Your task to perform on an android device: find snoozed emails in the gmail app Image 0: 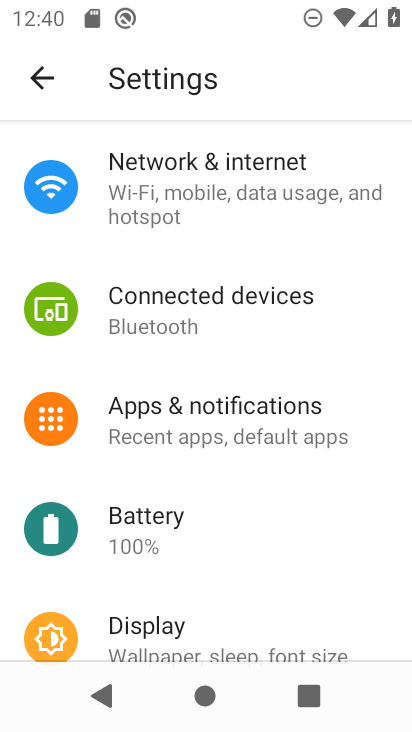
Step 0: press home button
Your task to perform on an android device: find snoozed emails in the gmail app Image 1: 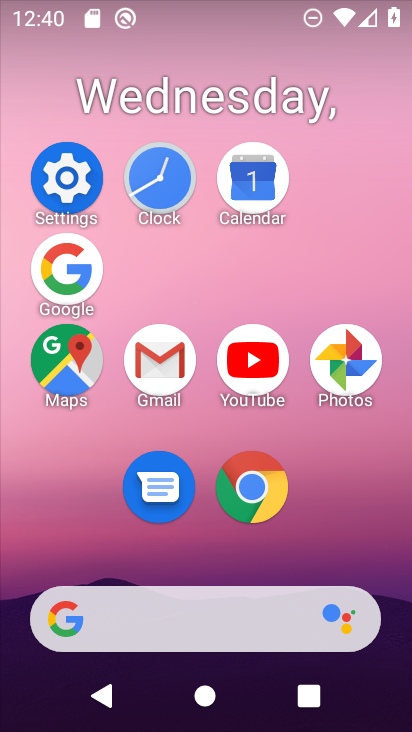
Step 1: click (159, 371)
Your task to perform on an android device: find snoozed emails in the gmail app Image 2: 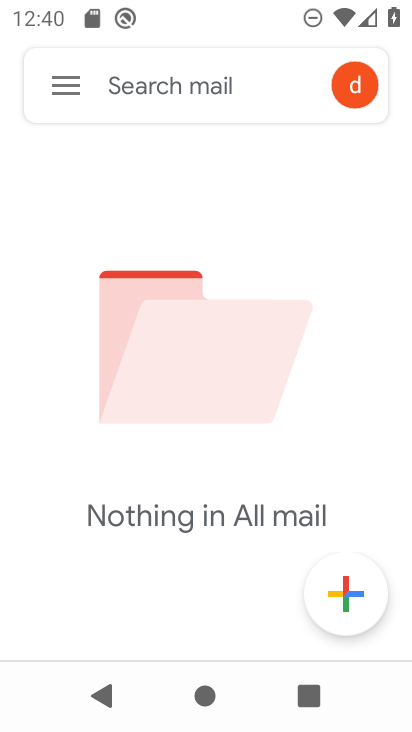
Step 2: click (73, 98)
Your task to perform on an android device: find snoozed emails in the gmail app Image 3: 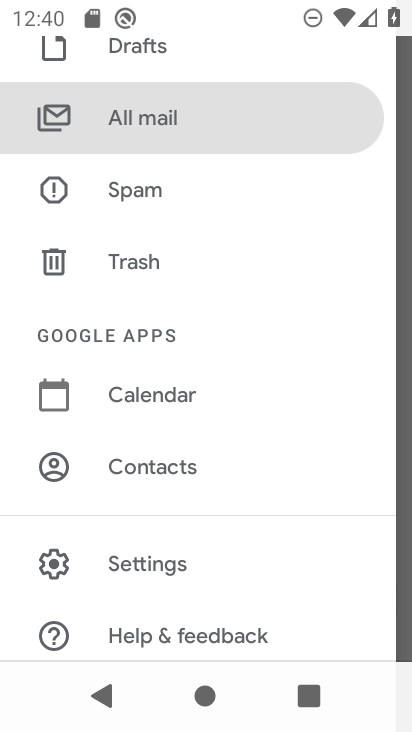
Step 3: drag from (243, 241) to (240, 589)
Your task to perform on an android device: find snoozed emails in the gmail app Image 4: 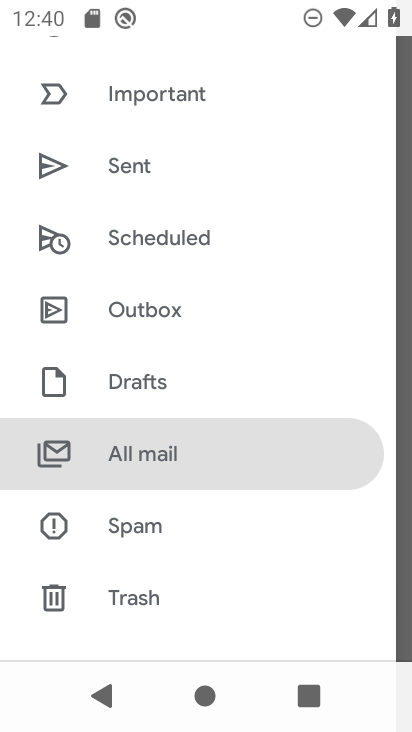
Step 4: drag from (256, 121) to (242, 501)
Your task to perform on an android device: find snoozed emails in the gmail app Image 5: 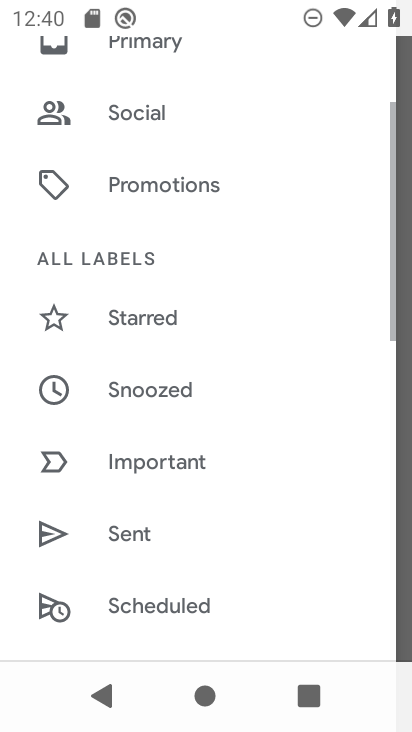
Step 5: drag from (242, 496) to (255, 100)
Your task to perform on an android device: find snoozed emails in the gmail app Image 6: 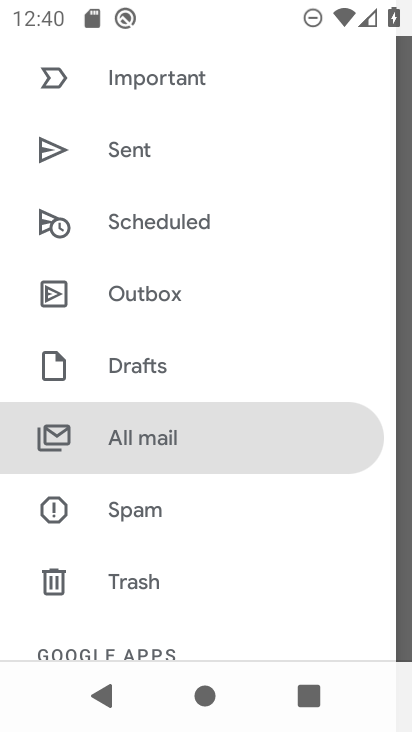
Step 6: click (228, 453)
Your task to perform on an android device: find snoozed emails in the gmail app Image 7: 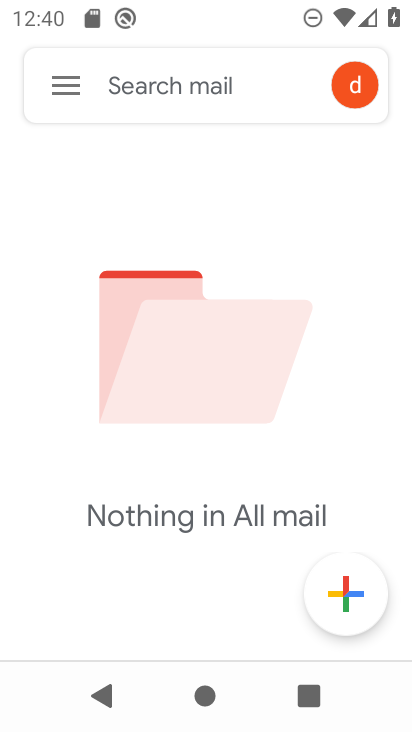
Step 7: click (49, 83)
Your task to perform on an android device: find snoozed emails in the gmail app Image 8: 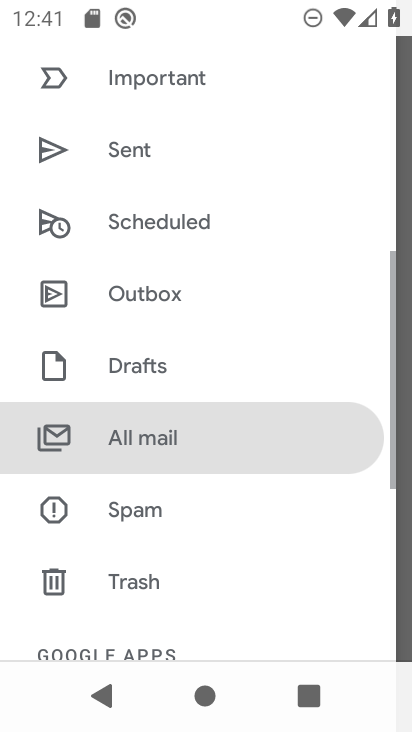
Step 8: drag from (207, 156) to (219, 526)
Your task to perform on an android device: find snoozed emails in the gmail app Image 9: 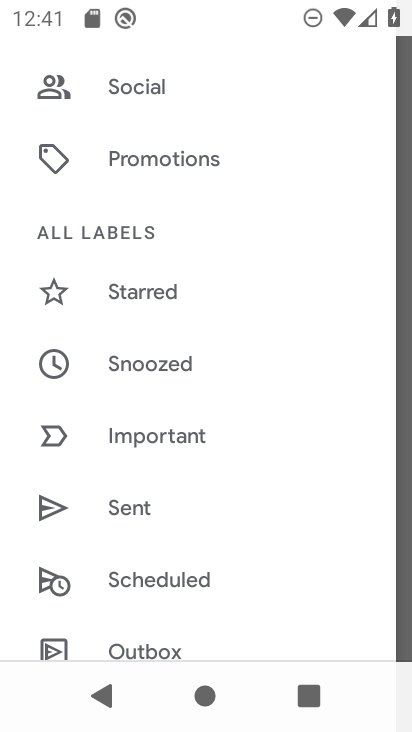
Step 9: drag from (265, 167) to (227, 577)
Your task to perform on an android device: find snoozed emails in the gmail app Image 10: 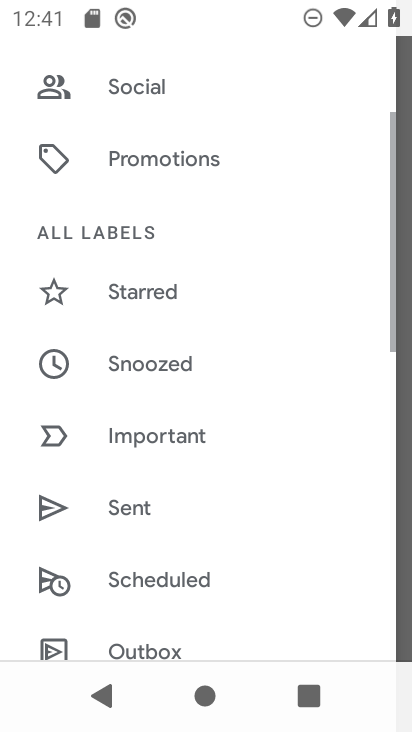
Step 10: drag from (276, 119) to (277, 405)
Your task to perform on an android device: find snoozed emails in the gmail app Image 11: 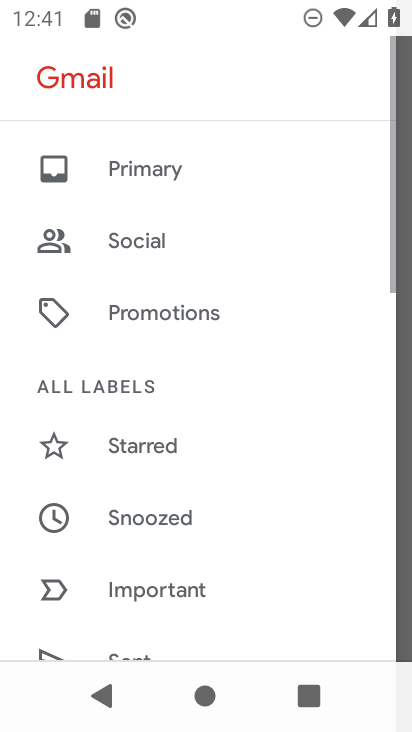
Step 11: drag from (274, 408) to (269, 202)
Your task to perform on an android device: find snoozed emails in the gmail app Image 12: 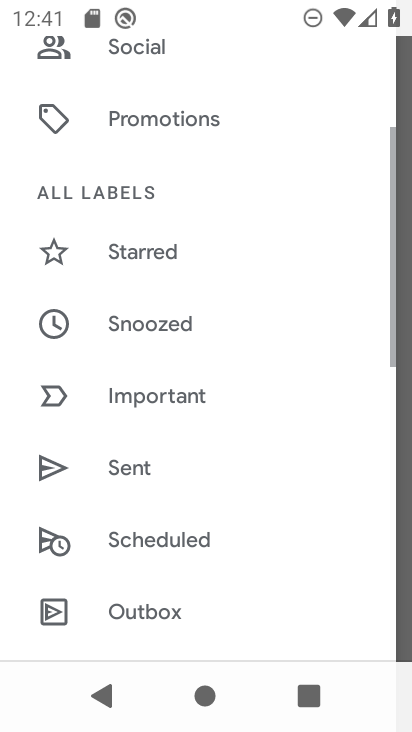
Step 12: click (188, 314)
Your task to perform on an android device: find snoozed emails in the gmail app Image 13: 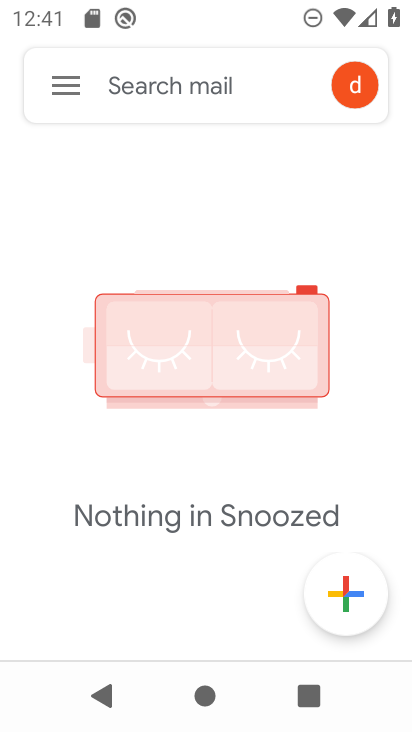
Step 13: task complete